Your task to perform on an android device: change the clock style Image 0: 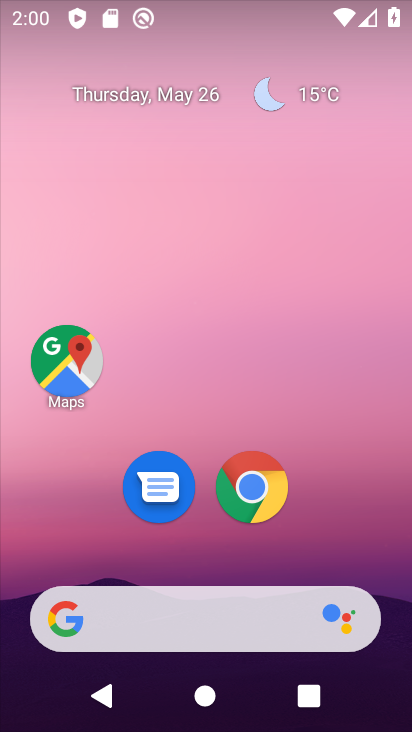
Step 0: drag from (218, 506) to (214, 165)
Your task to perform on an android device: change the clock style Image 1: 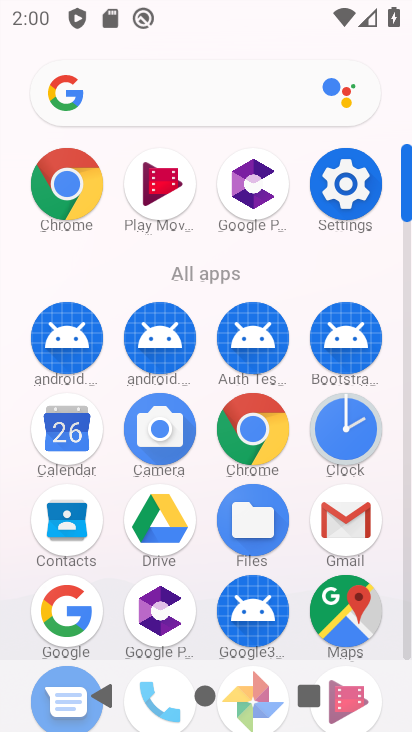
Step 1: click (330, 420)
Your task to perform on an android device: change the clock style Image 2: 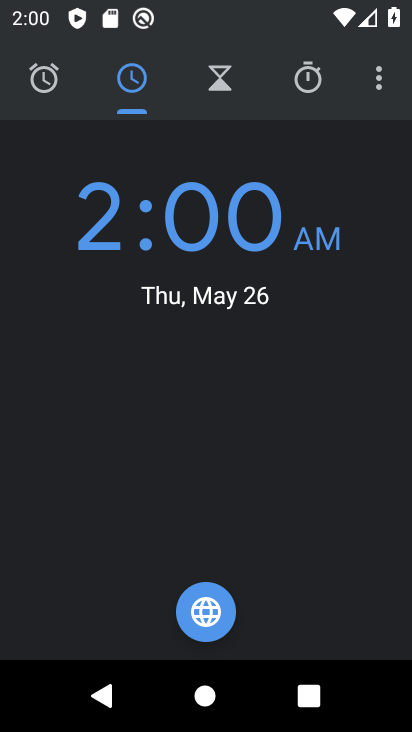
Step 2: click (373, 84)
Your task to perform on an android device: change the clock style Image 3: 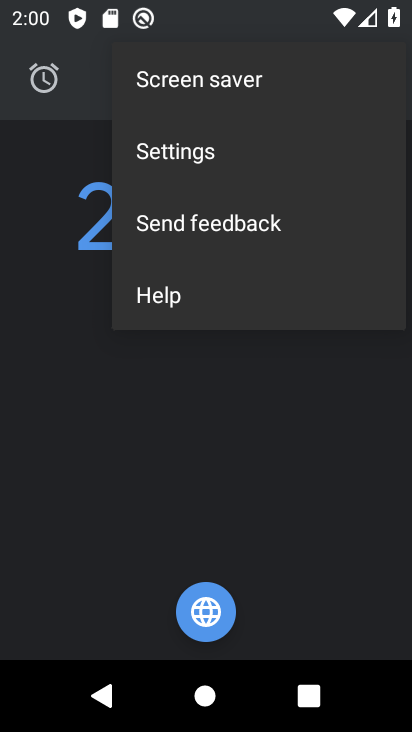
Step 3: click (230, 152)
Your task to perform on an android device: change the clock style Image 4: 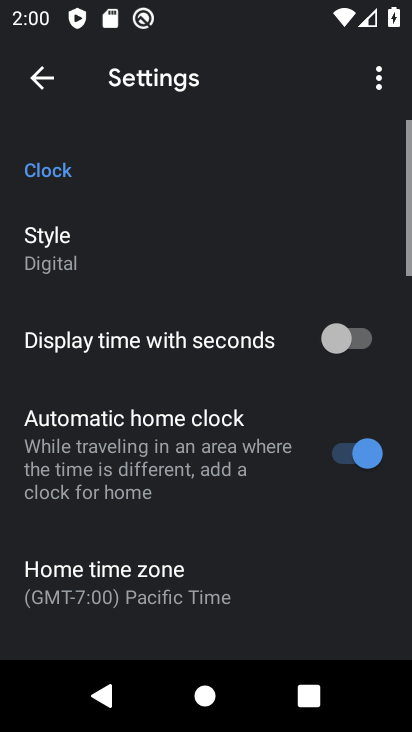
Step 4: click (114, 246)
Your task to perform on an android device: change the clock style Image 5: 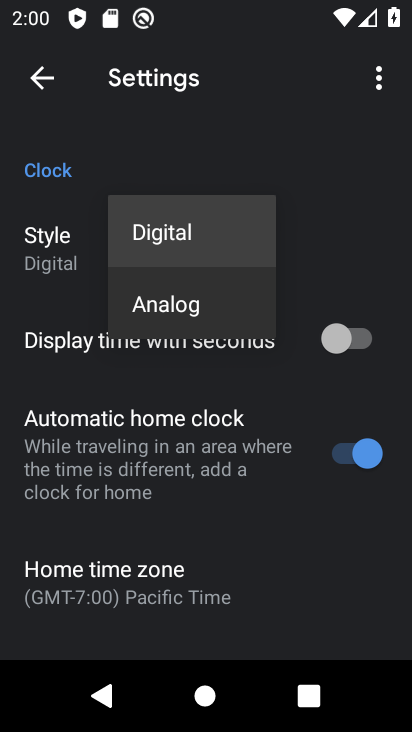
Step 5: click (177, 298)
Your task to perform on an android device: change the clock style Image 6: 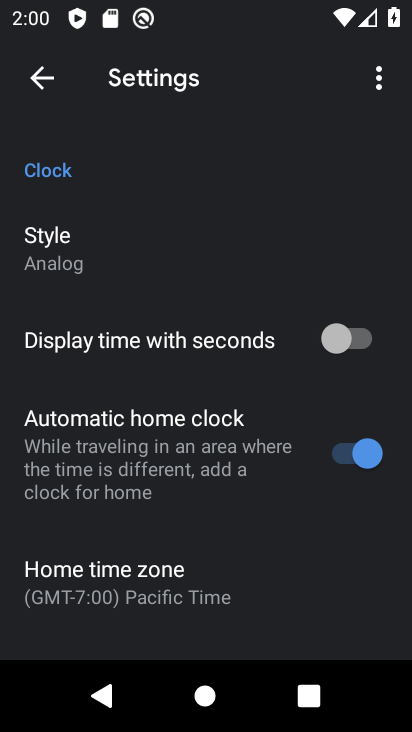
Step 6: task complete